Your task to perform on an android device: Show me the alarms in the clock app Image 0: 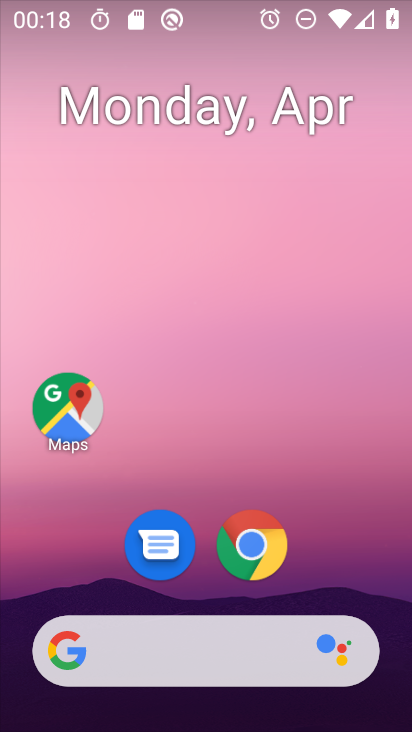
Step 0: drag from (338, 528) to (358, 78)
Your task to perform on an android device: Show me the alarms in the clock app Image 1: 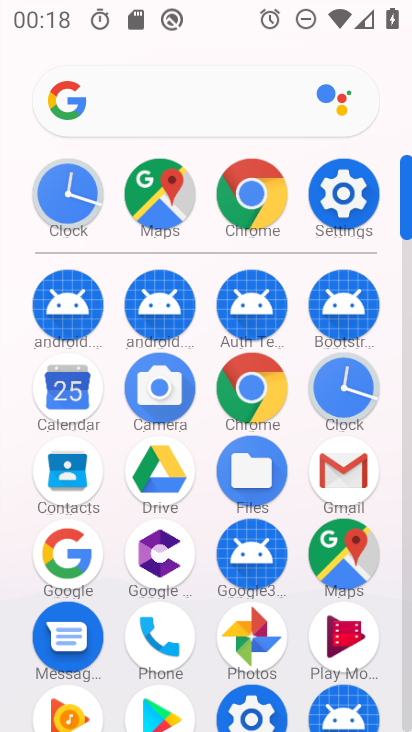
Step 1: click (331, 388)
Your task to perform on an android device: Show me the alarms in the clock app Image 2: 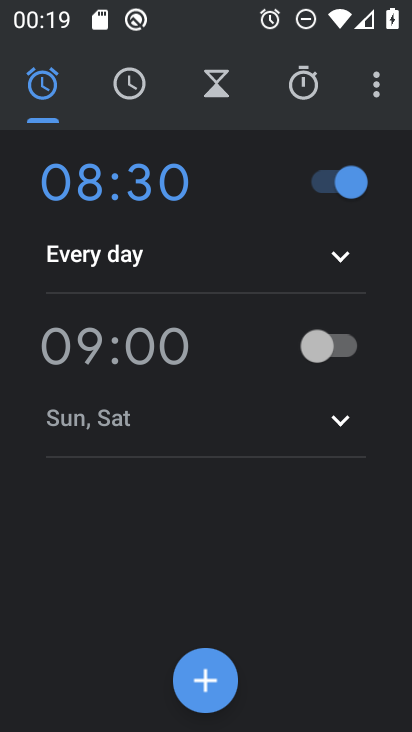
Step 2: task complete